Your task to perform on an android device: Open Google Maps and go to "Timeline" Image 0: 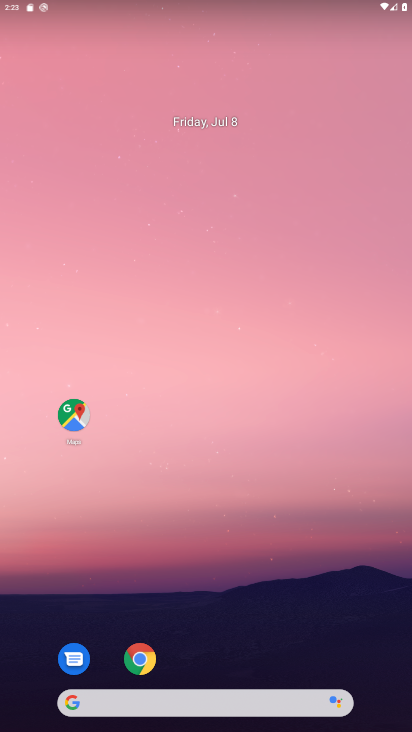
Step 0: click (79, 424)
Your task to perform on an android device: Open Google Maps and go to "Timeline" Image 1: 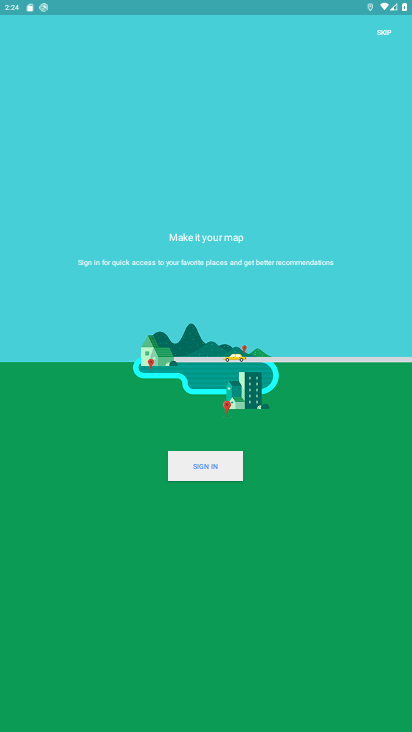
Step 1: click (209, 470)
Your task to perform on an android device: Open Google Maps and go to "Timeline" Image 2: 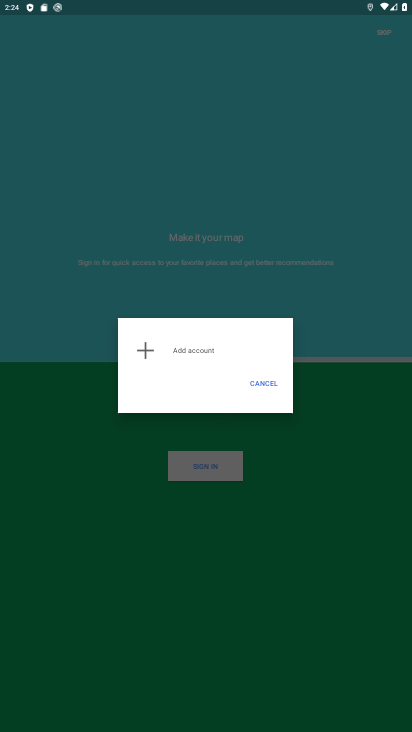
Step 2: task complete